Your task to perform on an android device: Show me the alarms in the clock app Image 0: 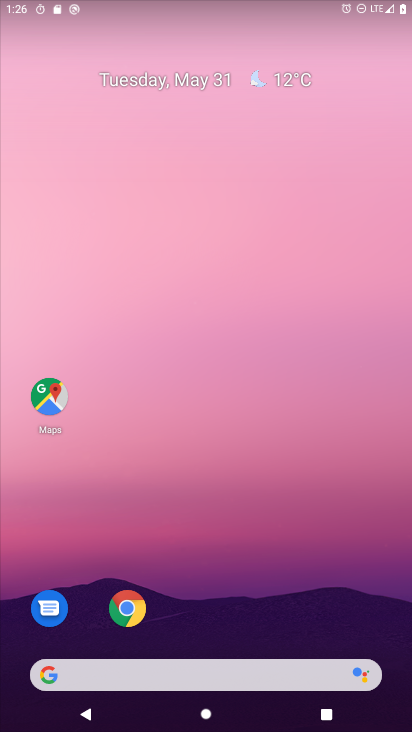
Step 0: drag from (296, 651) to (342, 0)
Your task to perform on an android device: Show me the alarms in the clock app Image 1: 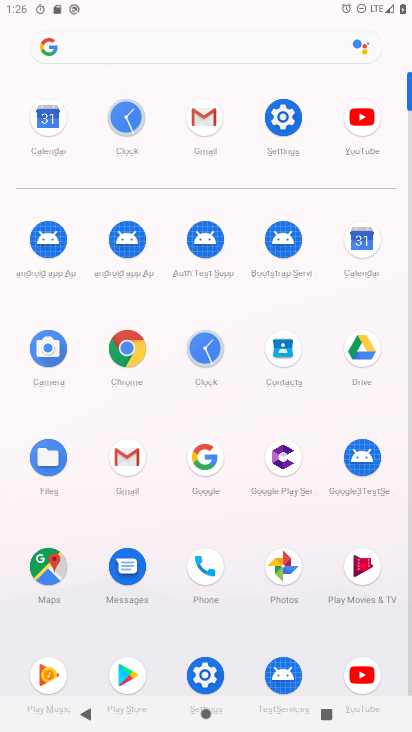
Step 1: click (129, 119)
Your task to perform on an android device: Show me the alarms in the clock app Image 2: 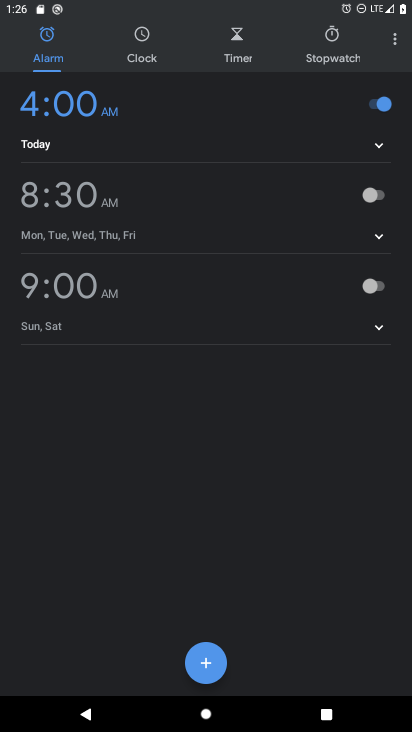
Step 2: task complete